Your task to perform on an android device: turn off wifi Image 0: 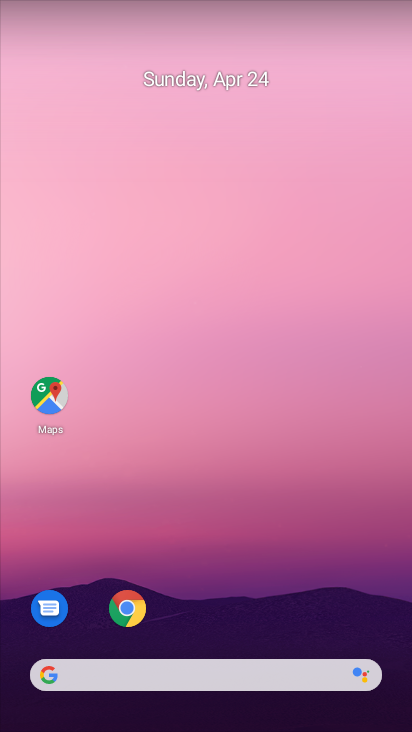
Step 0: drag from (270, 622) to (281, 92)
Your task to perform on an android device: turn off wifi Image 1: 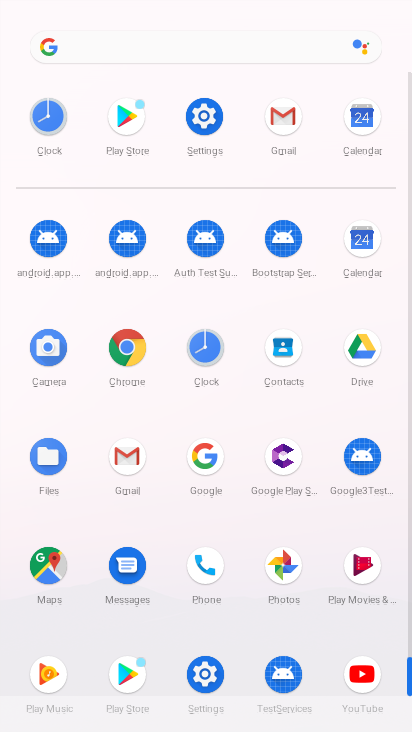
Step 1: click (204, 114)
Your task to perform on an android device: turn off wifi Image 2: 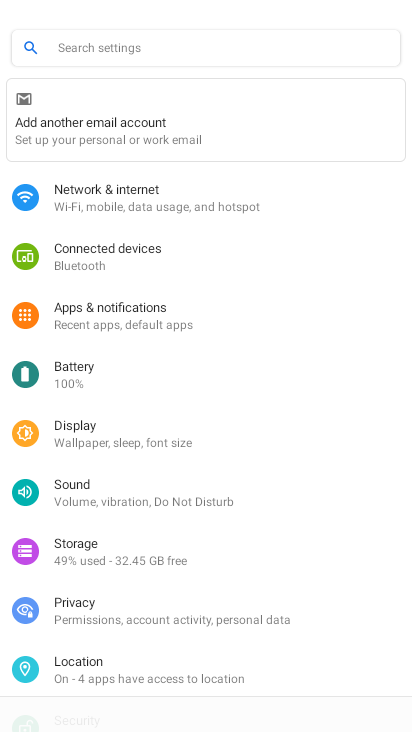
Step 2: click (191, 195)
Your task to perform on an android device: turn off wifi Image 3: 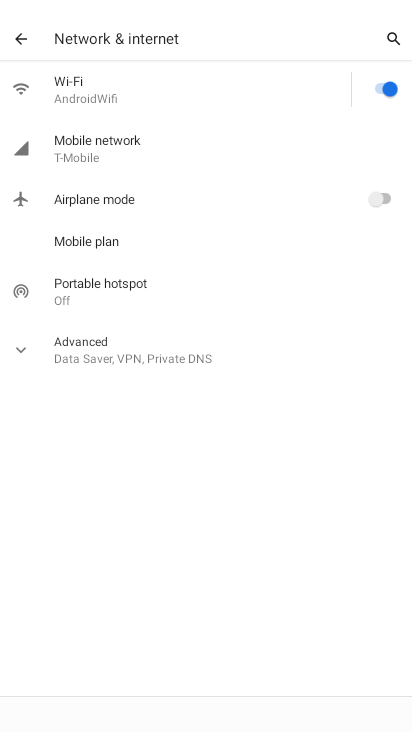
Step 3: click (379, 79)
Your task to perform on an android device: turn off wifi Image 4: 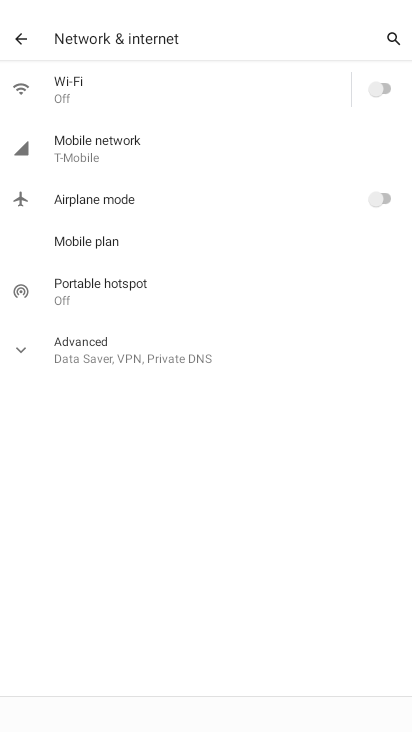
Step 4: task complete